Your task to perform on an android device: What is the news today? Image 0: 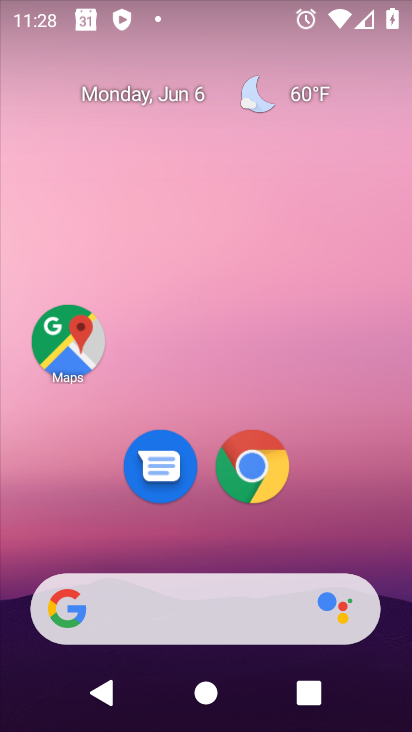
Step 0: drag from (266, 667) to (307, 98)
Your task to perform on an android device: What is the news today? Image 1: 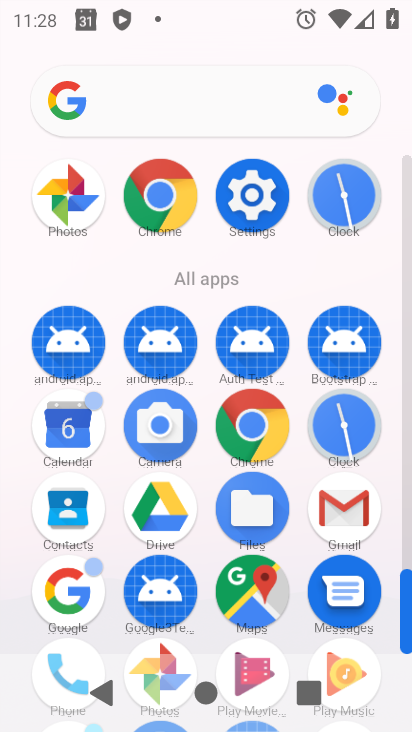
Step 1: click (175, 182)
Your task to perform on an android device: What is the news today? Image 2: 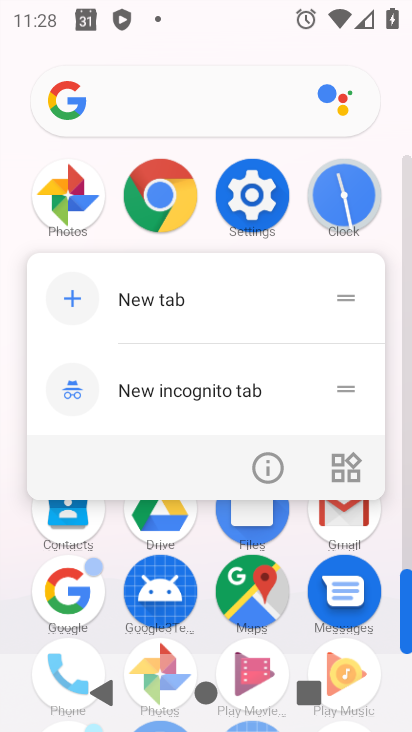
Step 2: click (174, 209)
Your task to perform on an android device: What is the news today? Image 3: 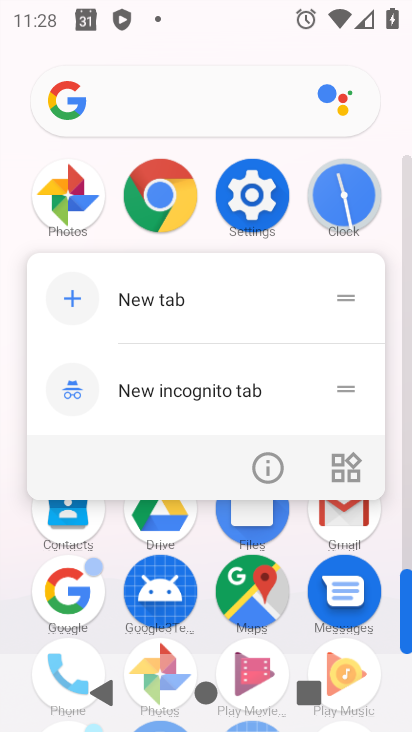
Step 3: click (145, 186)
Your task to perform on an android device: What is the news today? Image 4: 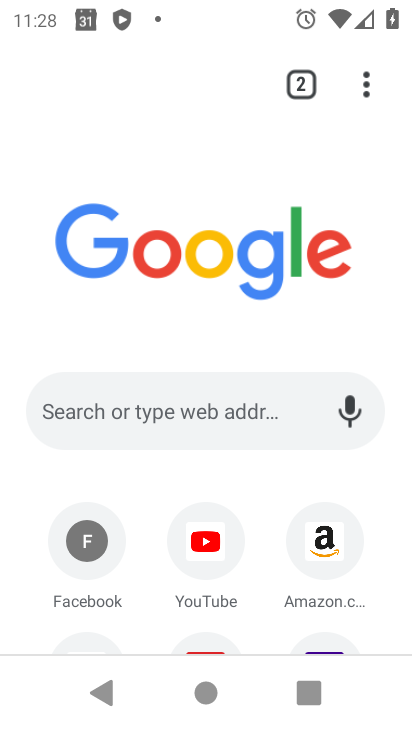
Step 4: click (185, 405)
Your task to perform on an android device: What is the news today? Image 5: 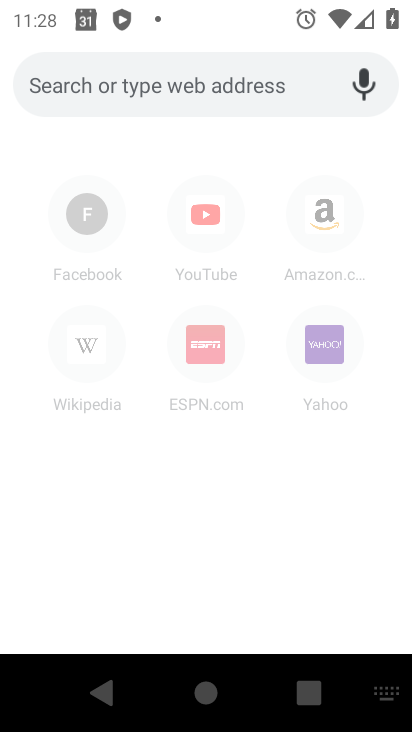
Step 5: type "news today"
Your task to perform on an android device: What is the news today? Image 6: 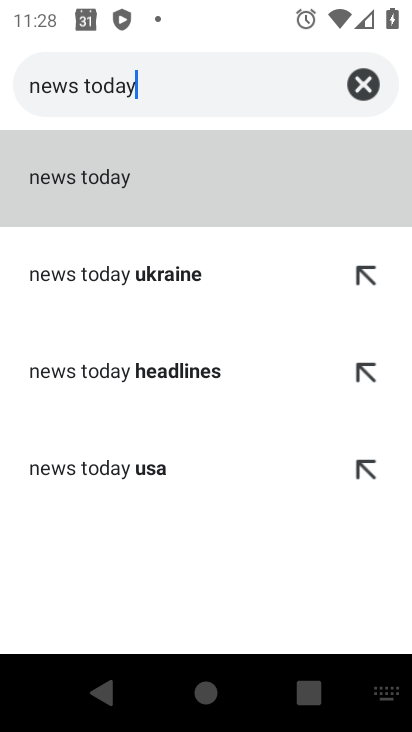
Step 6: click (175, 195)
Your task to perform on an android device: What is the news today? Image 7: 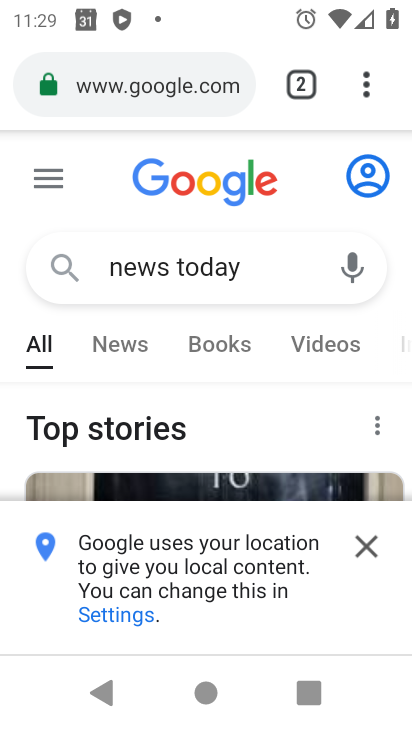
Step 7: task complete